Your task to perform on an android device: Open settings Image 0: 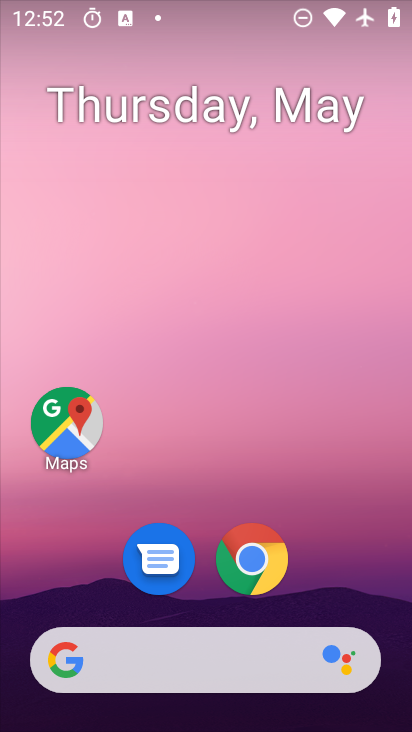
Step 0: drag from (207, 636) to (207, 45)
Your task to perform on an android device: Open settings Image 1: 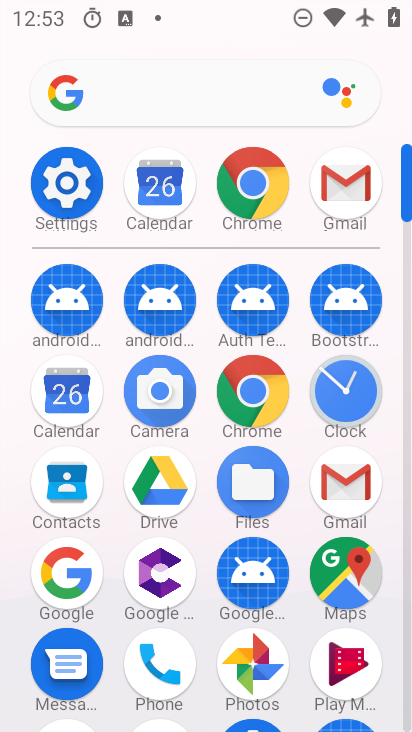
Step 1: click (75, 178)
Your task to perform on an android device: Open settings Image 2: 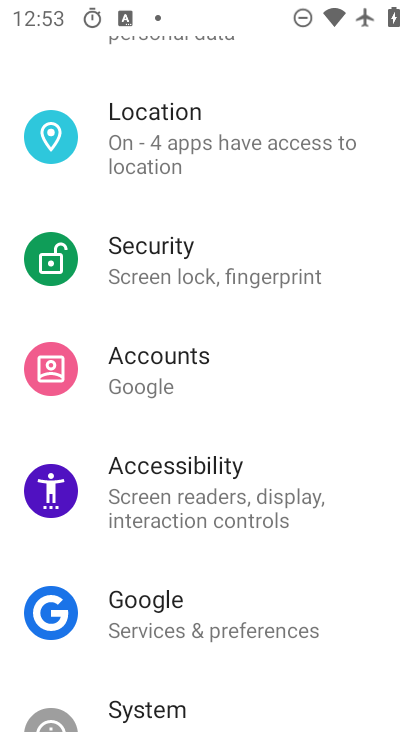
Step 2: task complete